Your task to perform on an android device: Show me popular games on the Play Store Image 0: 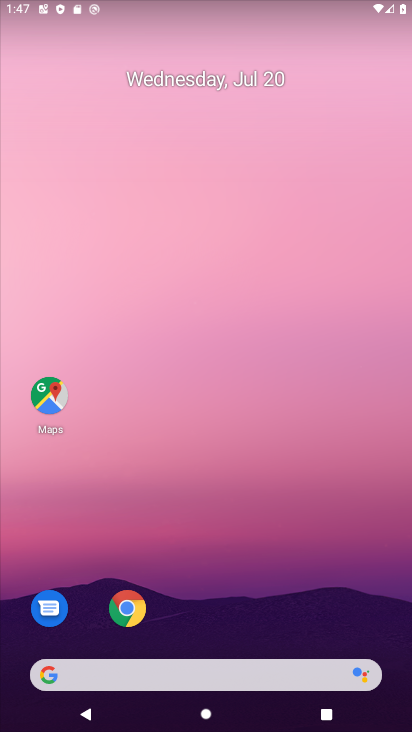
Step 0: drag from (242, 649) to (299, 121)
Your task to perform on an android device: Show me popular games on the Play Store Image 1: 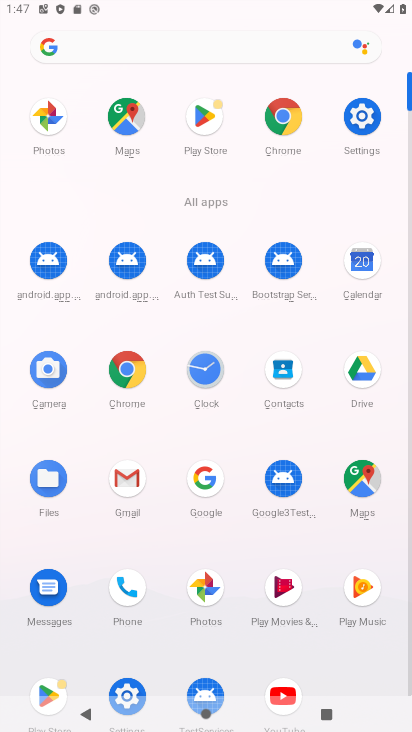
Step 1: task complete